Your task to perform on an android device: Check the weather Image 0: 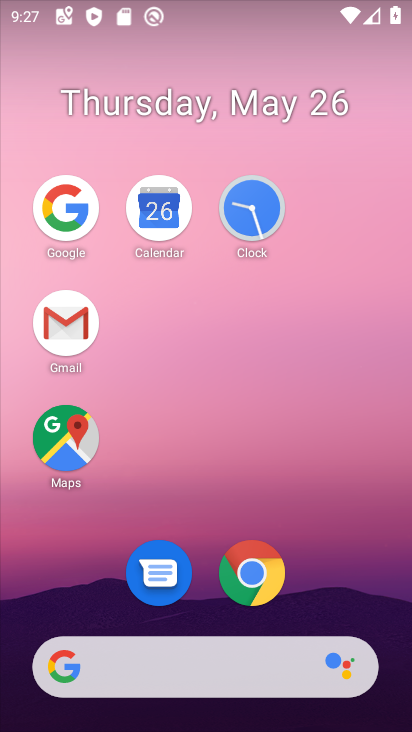
Step 0: click (46, 203)
Your task to perform on an android device: Check the weather Image 1: 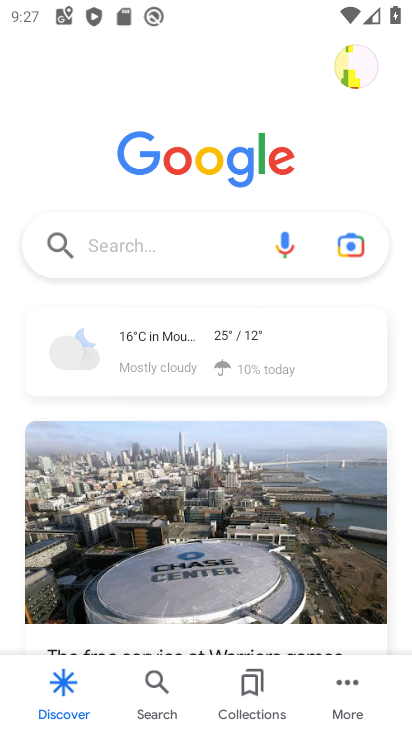
Step 1: click (185, 239)
Your task to perform on an android device: Check the weather Image 2: 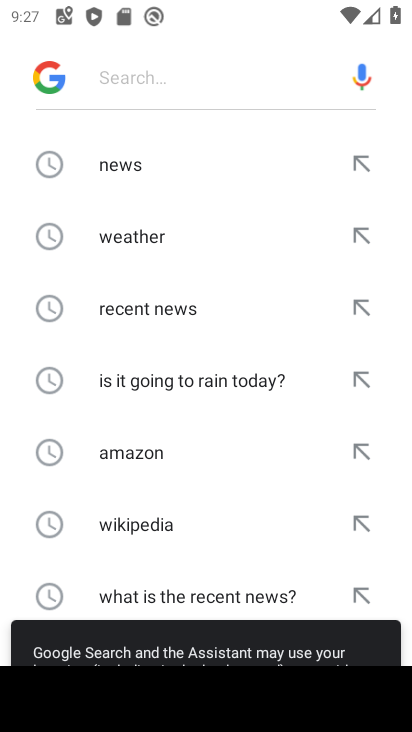
Step 2: click (146, 236)
Your task to perform on an android device: Check the weather Image 3: 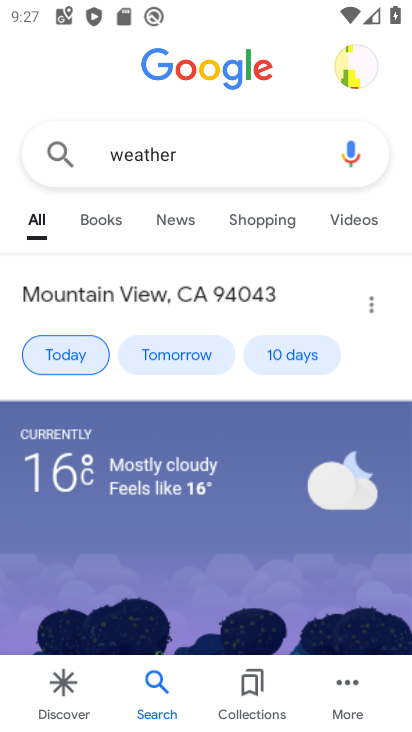
Step 3: task complete